Your task to perform on an android device: Is it going to rain today? Image 0: 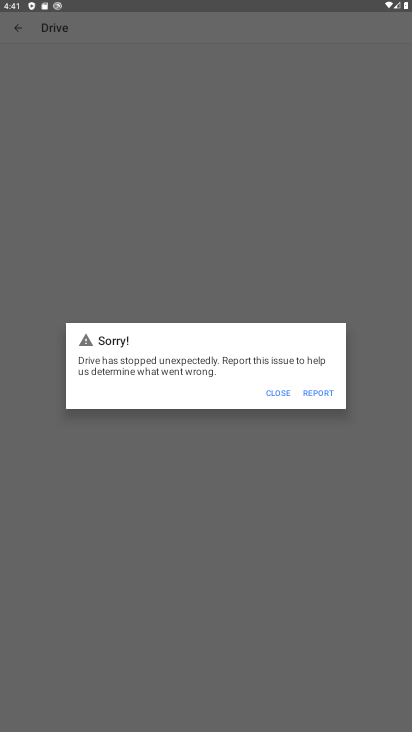
Step 0: click (278, 388)
Your task to perform on an android device: Is it going to rain today? Image 1: 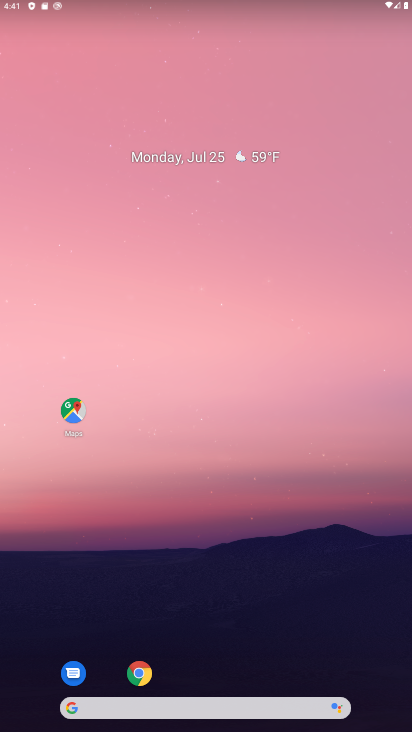
Step 1: drag from (277, 662) to (251, 64)
Your task to perform on an android device: Is it going to rain today? Image 2: 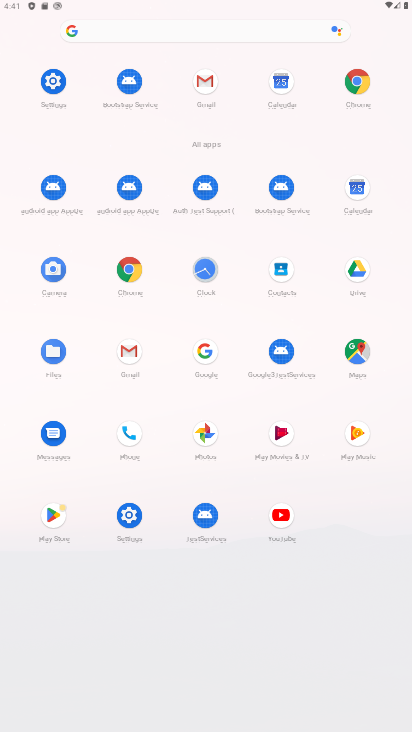
Step 2: click (357, 82)
Your task to perform on an android device: Is it going to rain today? Image 3: 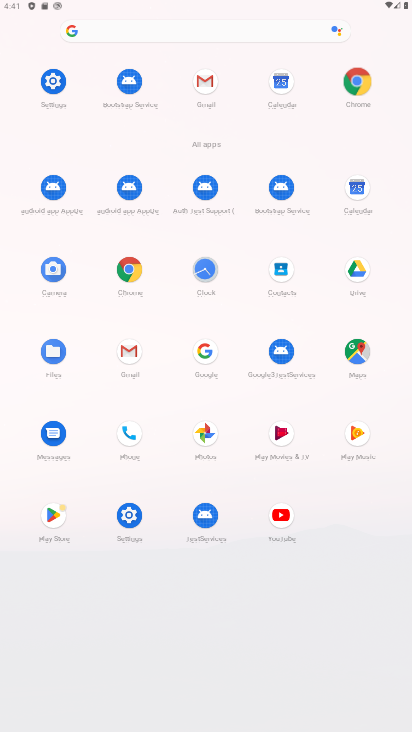
Step 3: click (357, 83)
Your task to perform on an android device: Is it going to rain today? Image 4: 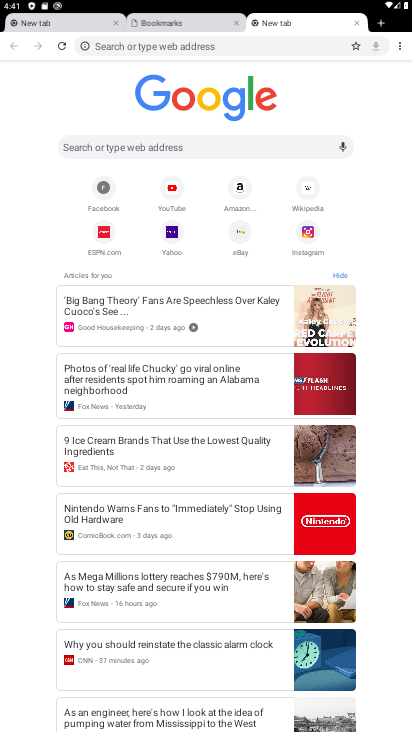
Step 4: click (104, 136)
Your task to perform on an android device: Is it going to rain today? Image 5: 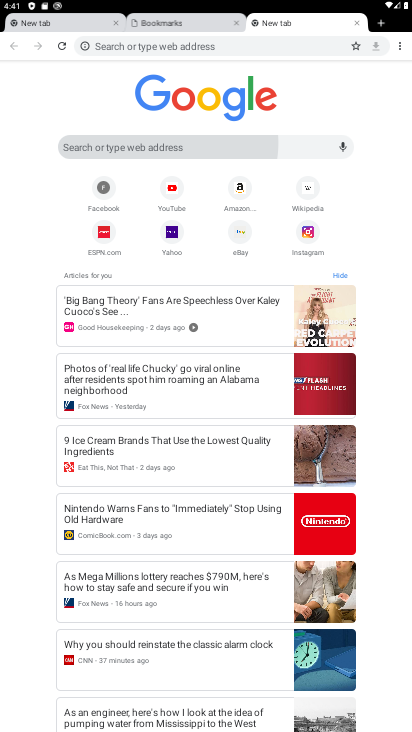
Step 5: click (104, 136)
Your task to perform on an android device: Is it going to rain today? Image 6: 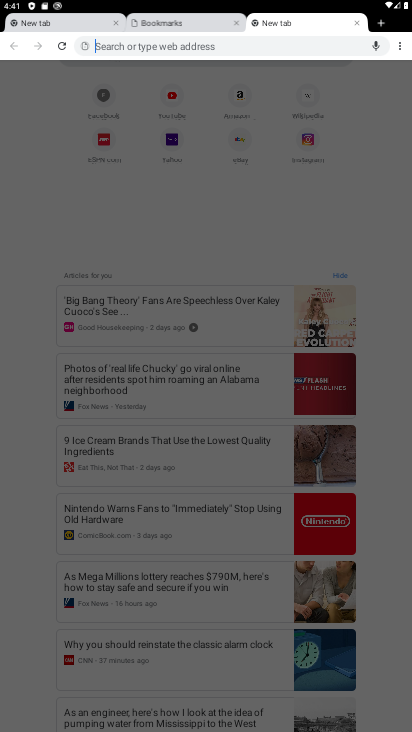
Step 6: click (111, 136)
Your task to perform on an android device: Is it going to rain today? Image 7: 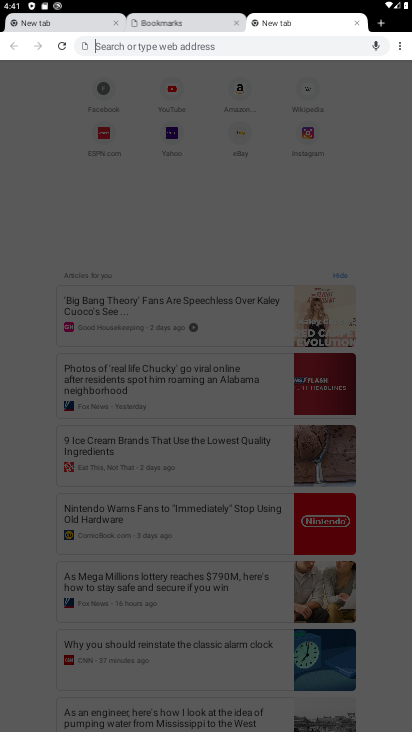
Step 7: click (121, 135)
Your task to perform on an android device: Is it going to rain today? Image 8: 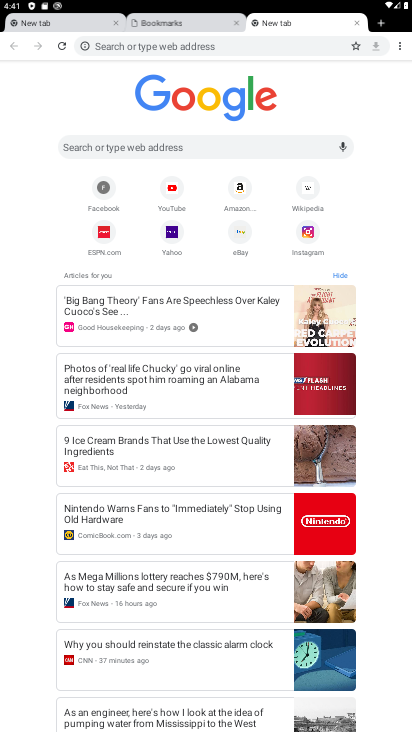
Step 8: click (115, 49)
Your task to perform on an android device: Is it going to rain today? Image 9: 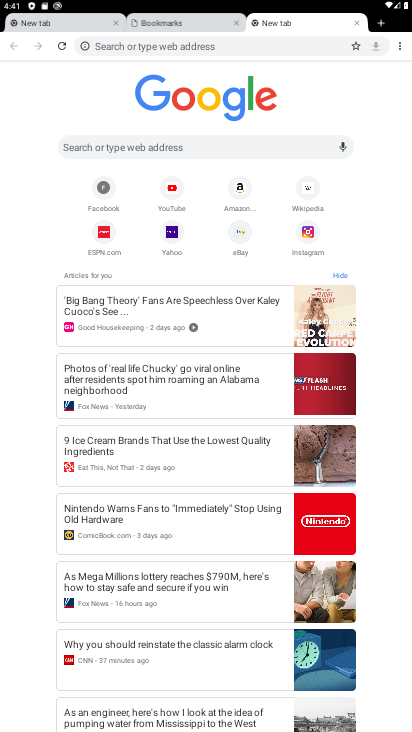
Step 9: click (112, 43)
Your task to perform on an android device: Is it going to rain today? Image 10: 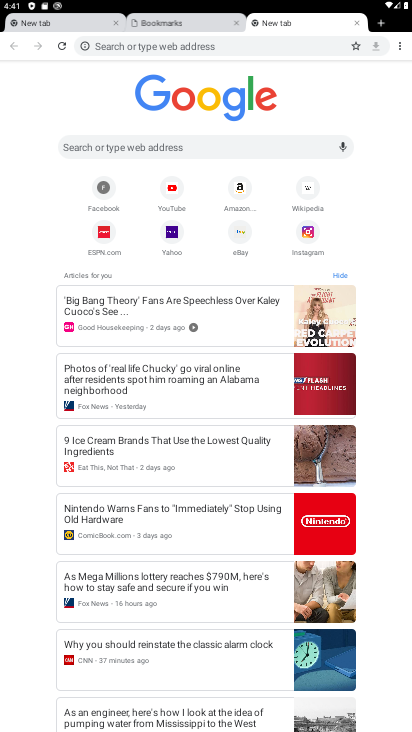
Step 10: click (114, 44)
Your task to perform on an android device: Is it going to rain today? Image 11: 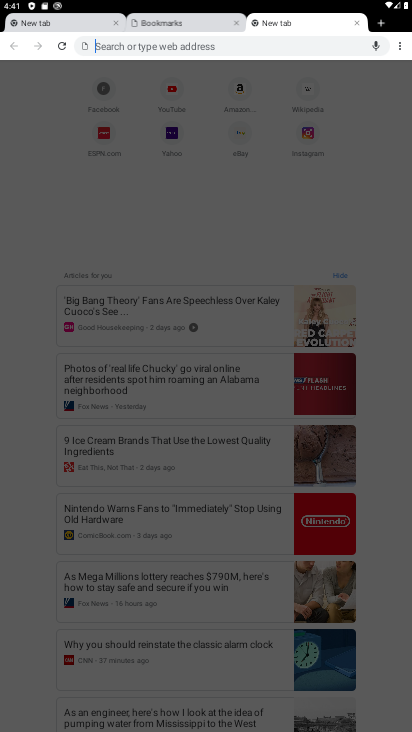
Step 11: click (129, 66)
Your task to perform on an android device: Is it going to rain today? Image 12: 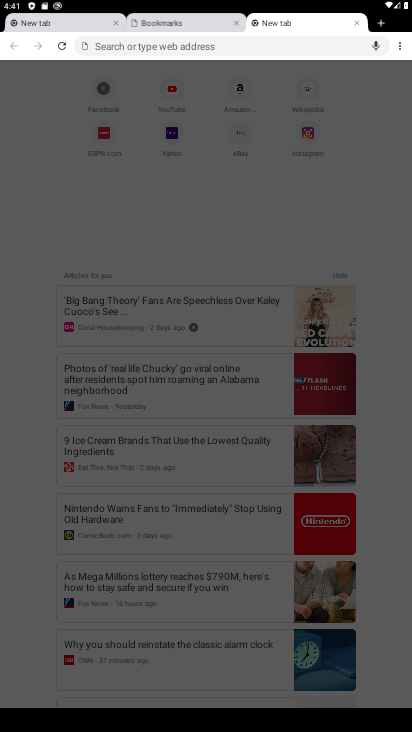
Step 12: click (100, 26)
Your task to perform on an android device: Is it going to rain today? Image 13: 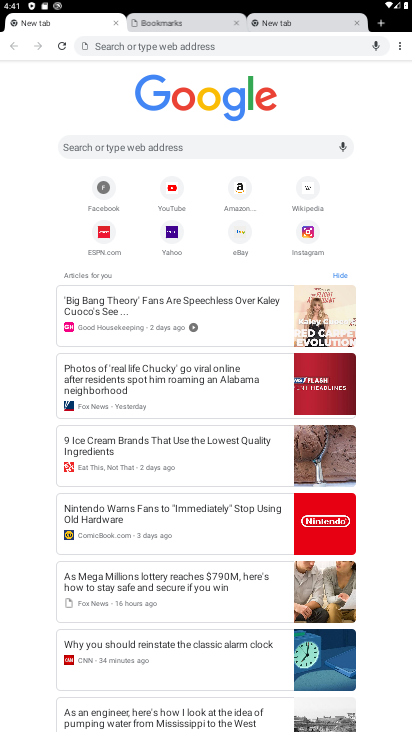
Step 13: type "is it going to rain today?"
Your task to perform on an android device: Is it going to rain today? Image 14: 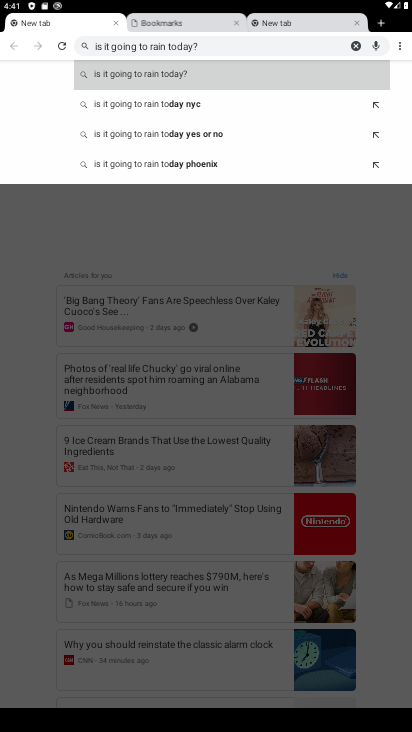
Step 14: click (216, 144)
Your task to perform on an android device: Is it going to rain today? Image 15: 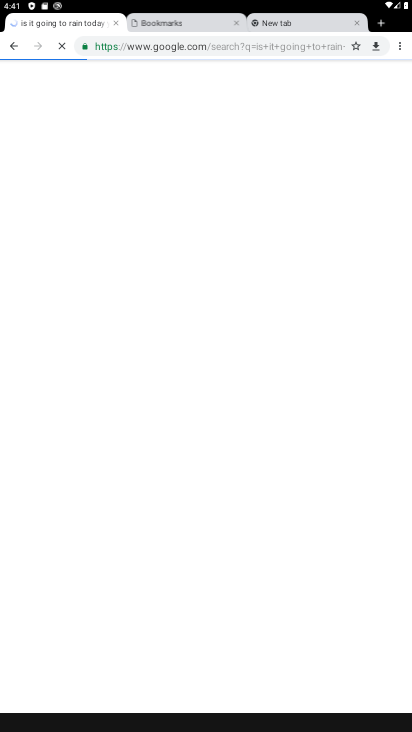
Step 15: click (182, 78)
Your task to perform on an android device: Is it going to rain today? Image 16: 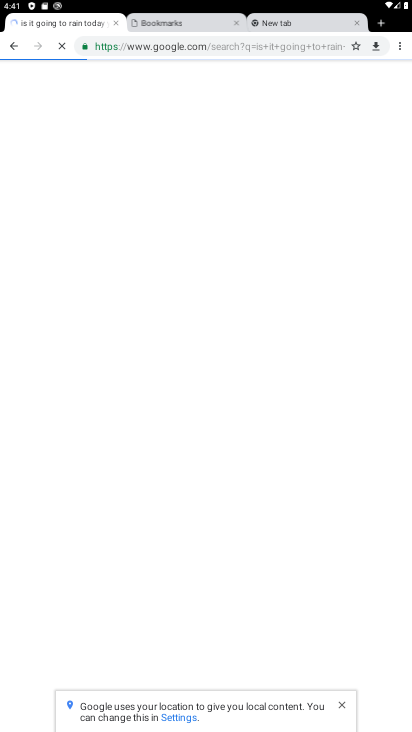
Step 16: click (171, 76)
Your task to perform on an android device: Is it going to rain today? Image 17: 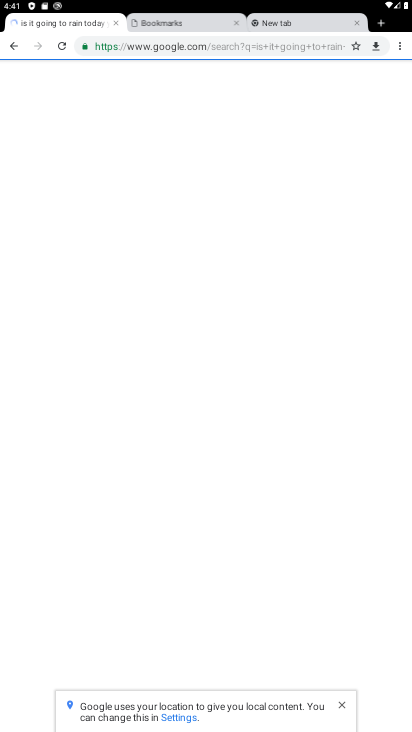
Step 17: task complete